Your task to perform on an android device: Open Amazon Image 0: 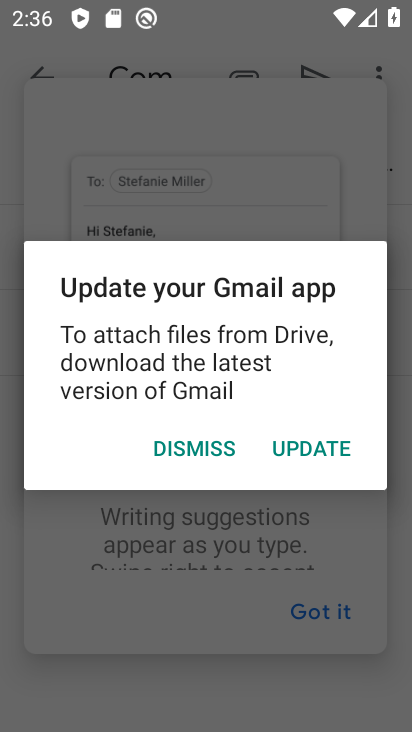
Step 0: press home button
Your task to perform on an android device: Open Amazon Image 1: 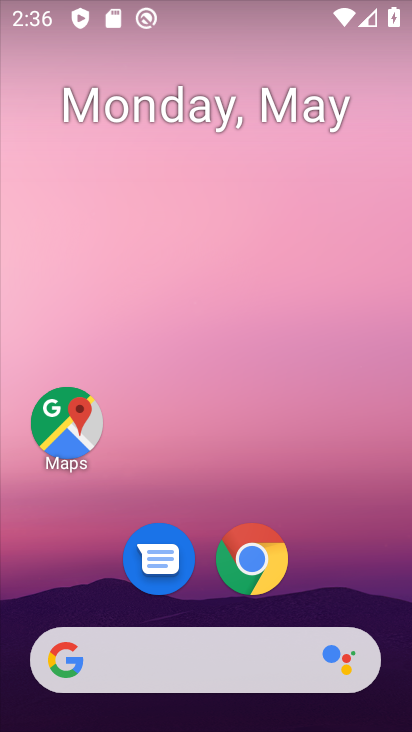
Step 1: click (237, 571)
Your task to perform on an android device: Open Amazon Image 2: 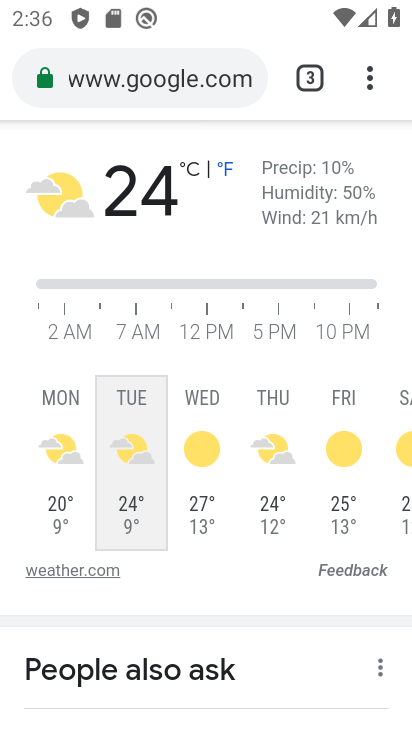
Step 2: click (309, 72)
Your task to perform on an android device: Open Amazon Image 3: 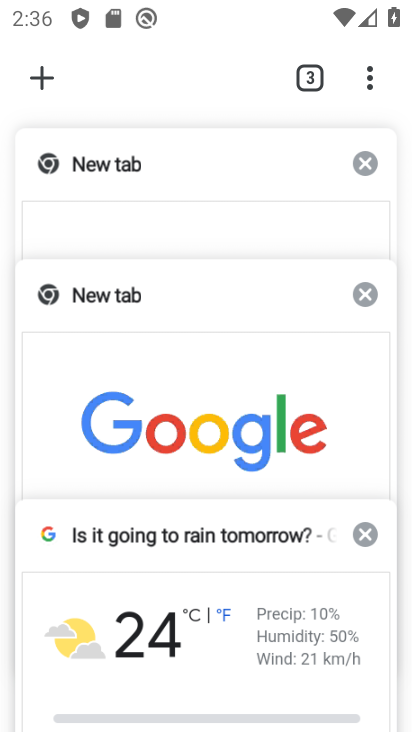
Step 3: click (35, 73)
Your task to perform on an android device: Open Amazon Image 4: 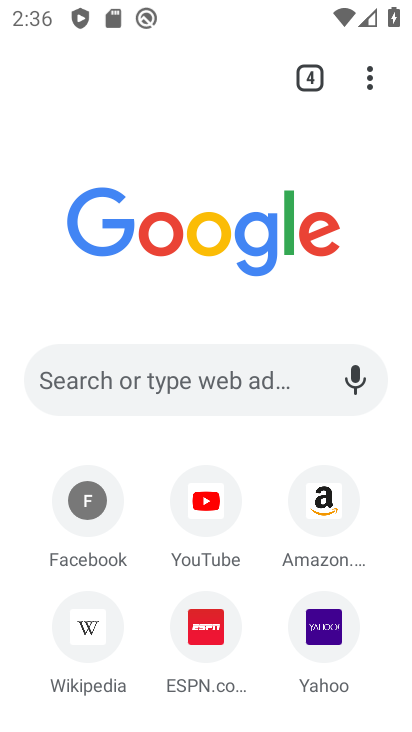
Step 4: click (330, 521)
Your task to perform on an android device: Open Amazon Image 5: 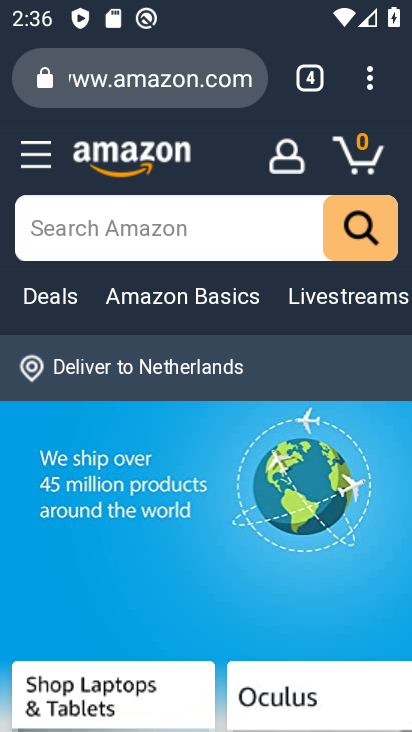
Step 5: task complete